Your task to perform on an android device: Open location settings Image 0: 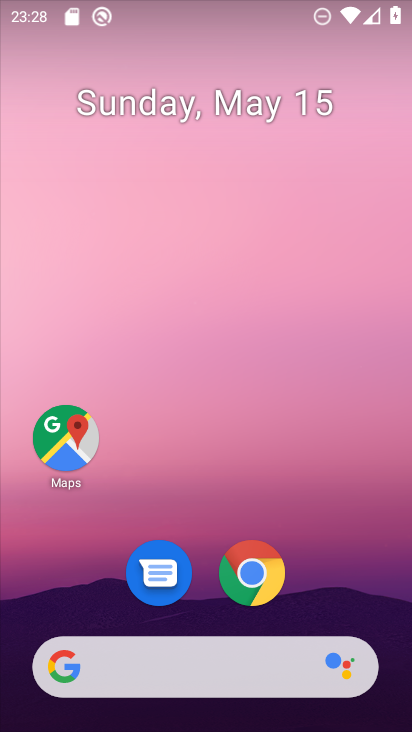
Step 0: drag from (346, 563) to (299, 7)
Your task to perform on an android device: Open location settings Image 1: 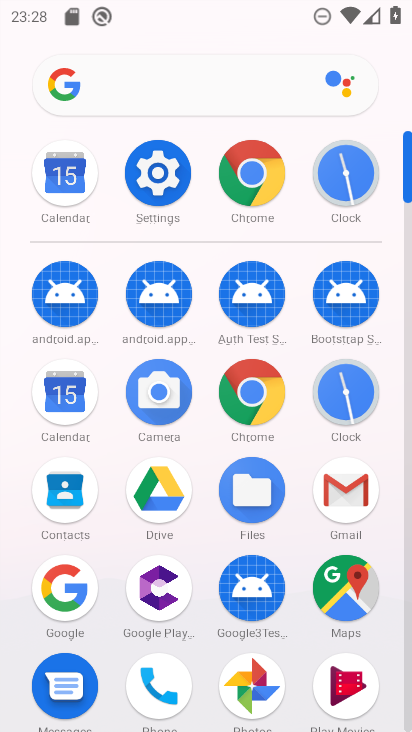
Step 1: click (153, 162)
Your task to perform on an android device: Open location settings Image 2: 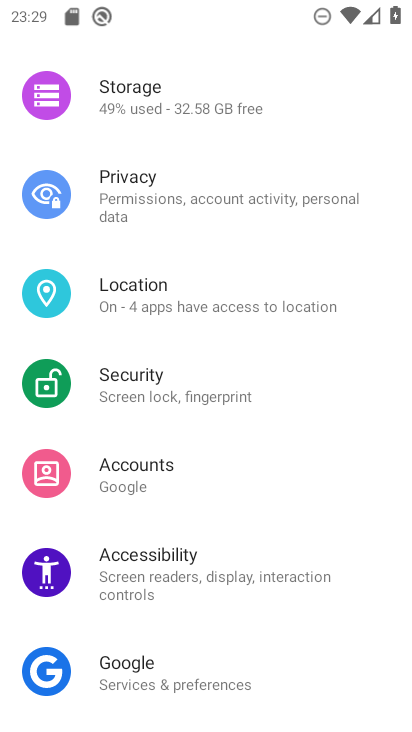
Step 2: drag from (213, 625) to (246, 545)
Your task to perform on an android device: Open location settings Image 3: 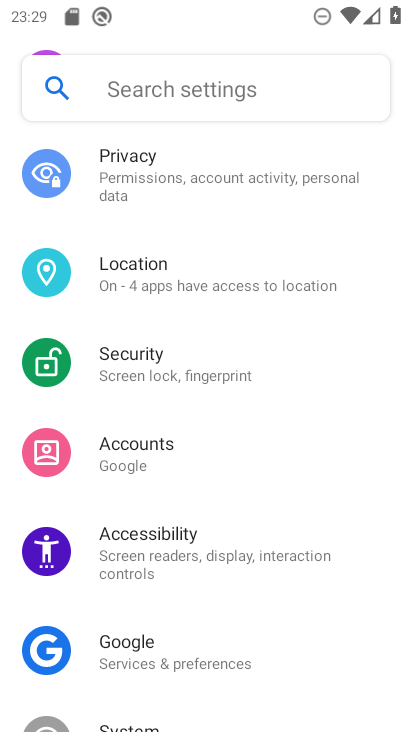
Step 3: click (196, 294)
Your task to perform on an android device: Open location settings Image 4: 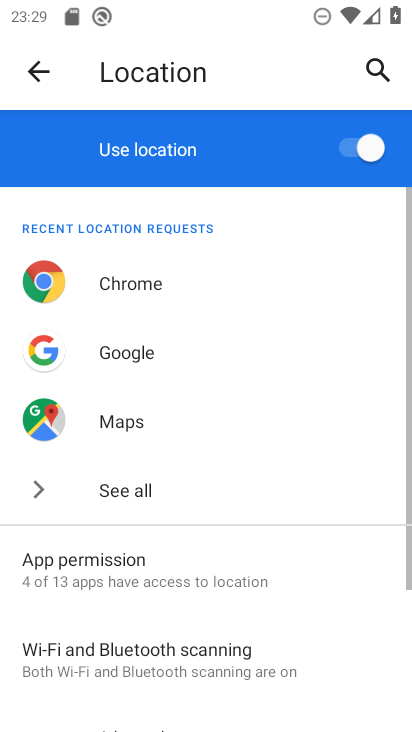
Step 4: task complete